Your task to perform on an android device: move an email to a new category in the gmail app Image 0: 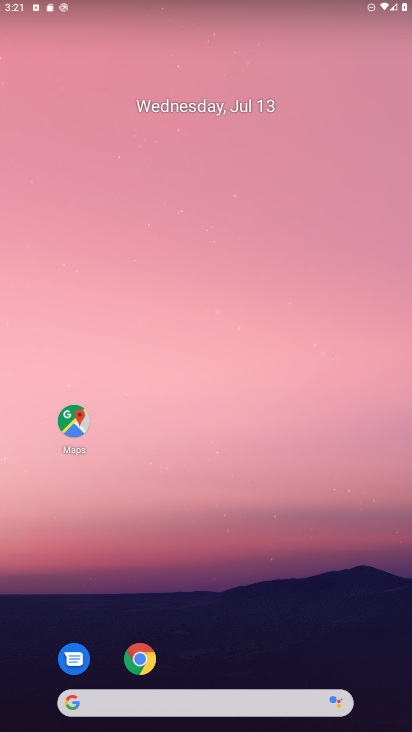
Step 0: drag from (318, 636) to (268, 182)
Your task to perform on an android device: move an email to a new category in the gmail app Image 1: 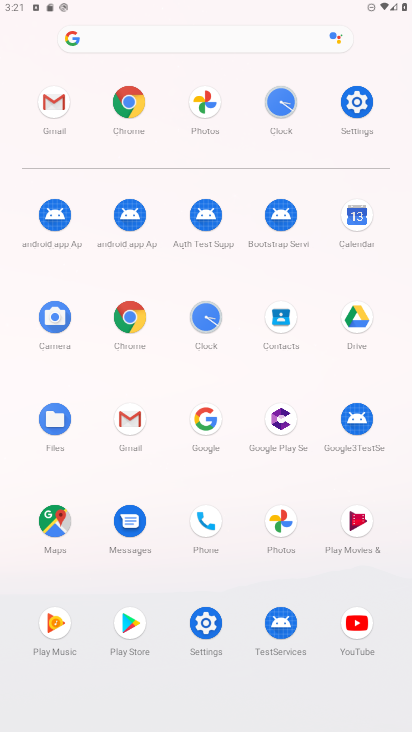
Step 1: click (129, 416)
Your task to perform on an android device: move an email to a new category in the gmail app Image 2: 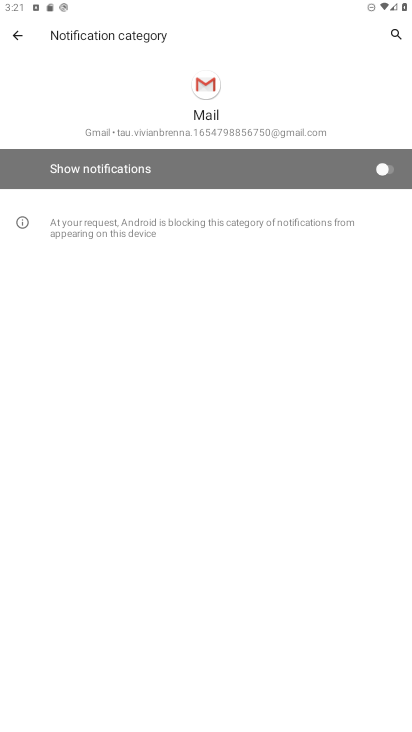
Step 2: press back button
Your task to perform on an android device: move an email to a new category in the gmail app Image 3: 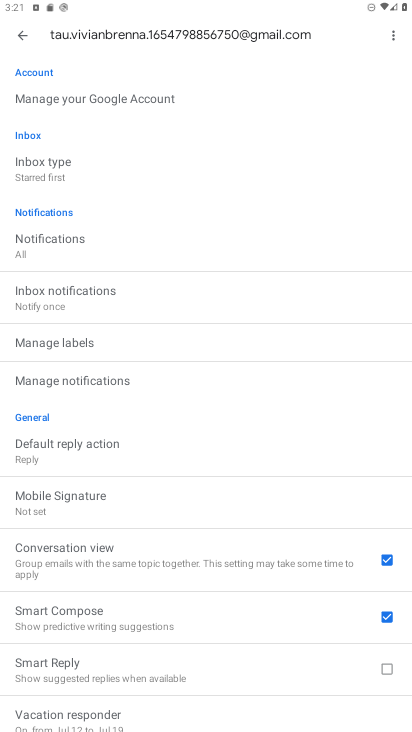
Step 3: press back button
Your task to perform on an android device: move an email to a new category in the gmail app Image 4: 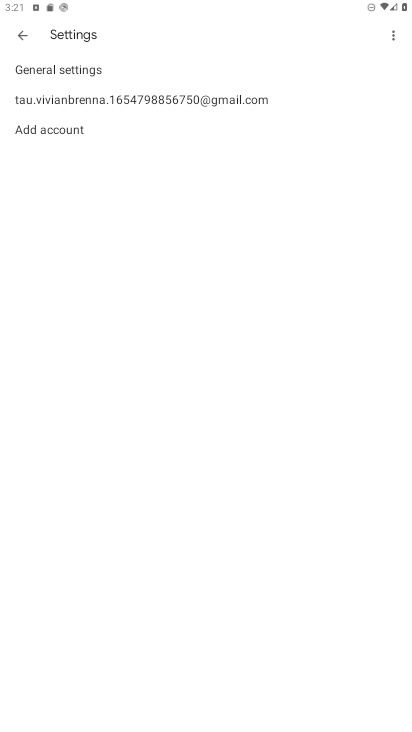
Step 4: press back button
Your task to perform on an android device: move an email to a new category in the gmail app Image 5: 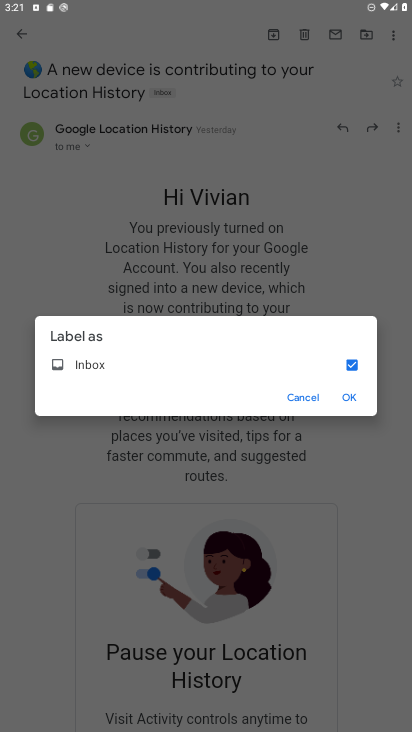
Step 5: click (296, 396)
Your task to perform on an android device: move an email to a new category in the gmail app Image 6: 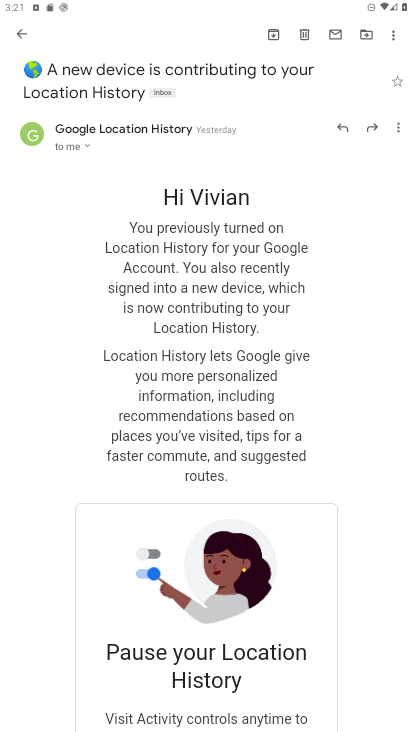
Step 6: press back button
Your task to perform on an android device: move an email to a new category in the gmail app Image 7: 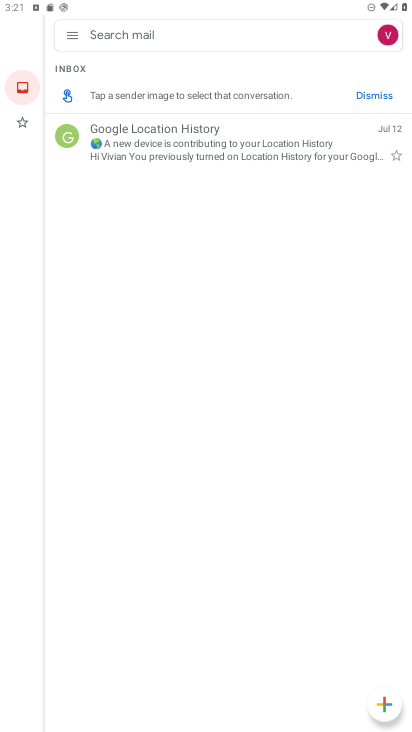
Step 7: click (214, 128)
Your task to perform on an android device: move an email to a new category in the gmail app Image 8: 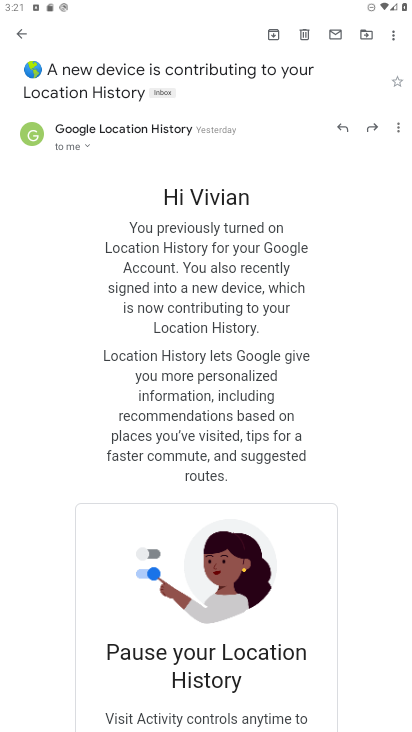
Step 8: click (367, 38)
Your task to perform on an android device: move an email to a new category in the gmail app Image 9: 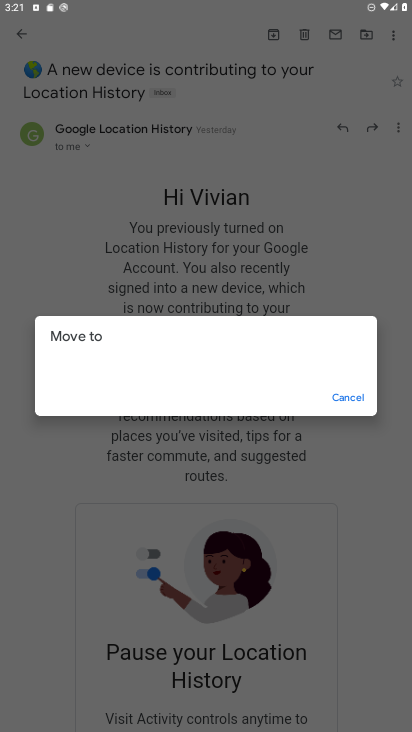
Step 9: click (130, 359)
Your task to perform on an android device: move an email to a new category in the gmail app Image 10: 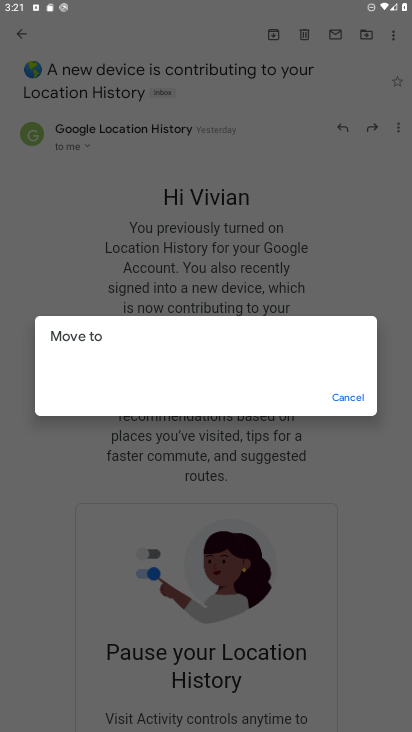
Step 10: task complete